Your task to perform on an android device: Open the map Image 0: 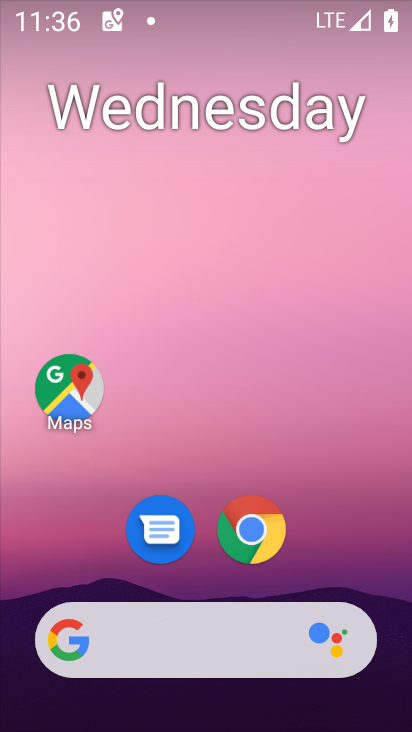
Step 0: click (68, 386)
Your task to perform on an android device: Open the map Image 1: 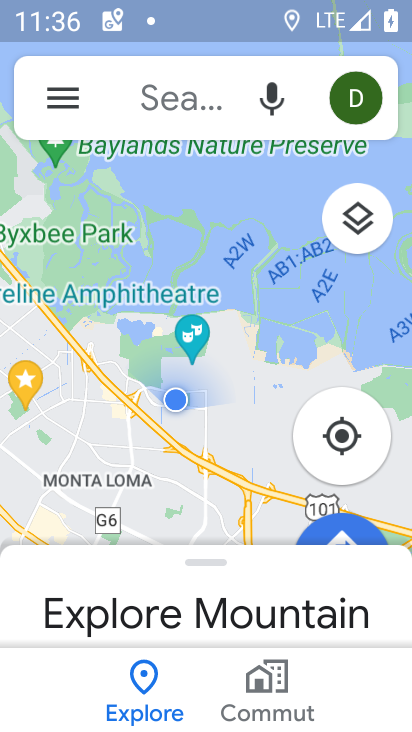
Step 1: task complete